Your task to perform on an android device: Find coffee shops on Maps Image 0: 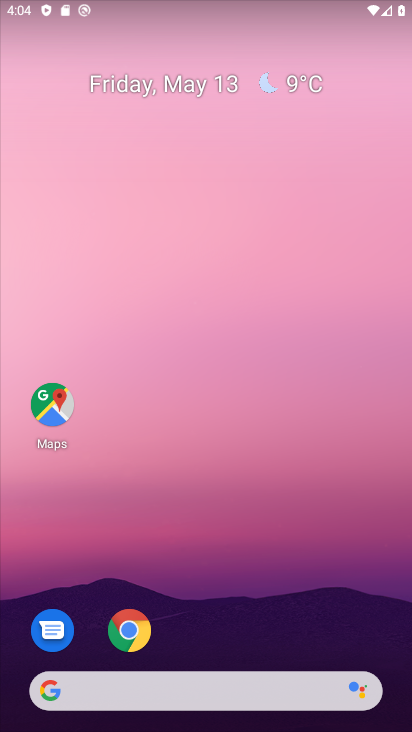
Step 0: drag from (221, 534) to (214, 98)
Your task to perform on an android device: Find coffee shops on Maps Image 1: 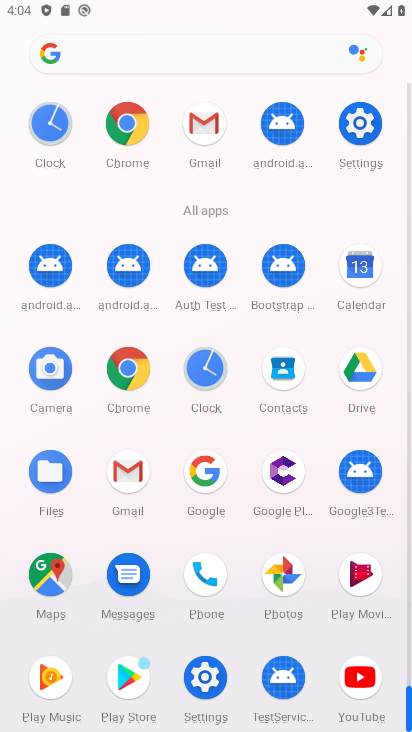
Step 1: drag from (8, 595) to (28, 295)
Your task to perform on an android device: Find coffee shops on Maps Image 2: 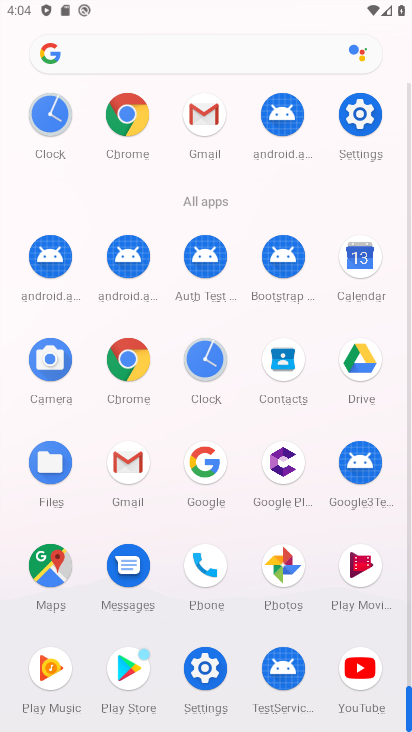
Step 2: click (47, 561)
Your task to perform on an android device: Find coffee shops on Maps Image 3: 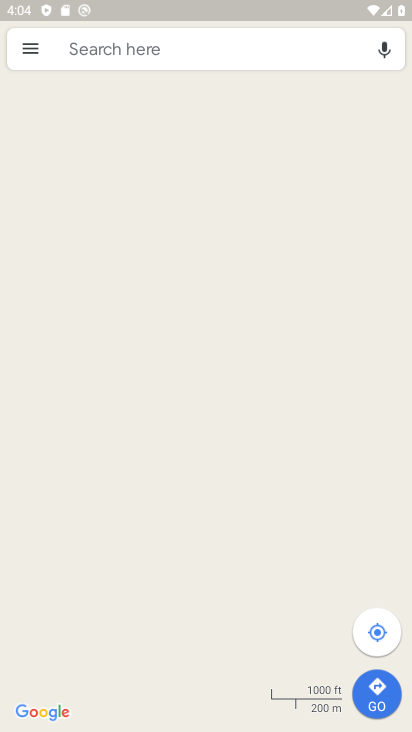
Step 3: click (220, 55)
Your task to perform on an android device: Find coffee shops on Maps Image 4: 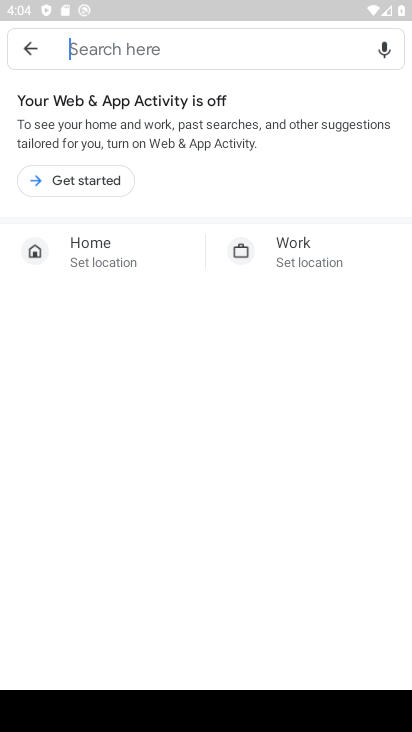
Step 4: click (29, 43)
Your task to perform on an android device: Find coffee shops on Maps Image 5: 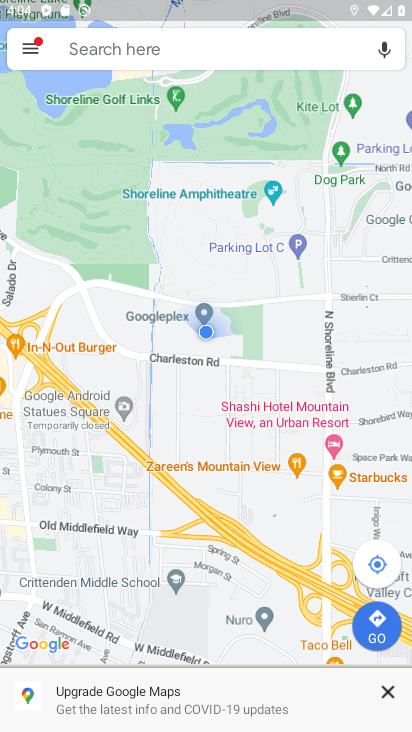
Step 5: click (193, 44)
Your task to perform on an android device: Find coffee shops on Maps Image 6: 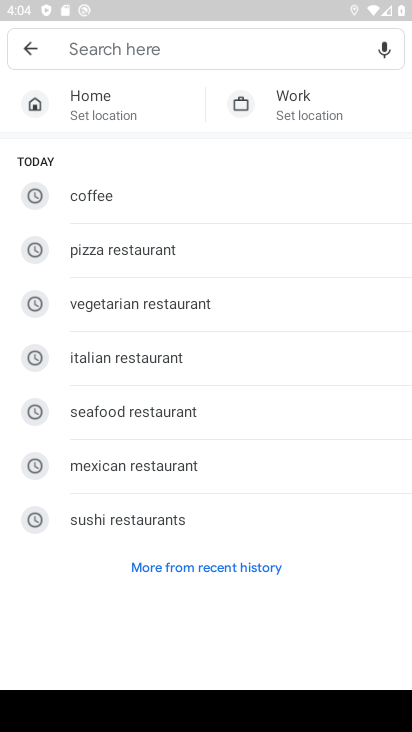
Step 6: click (135, 195)
Your task to perform on an android device: Find coffee shops on Maps Image 7: 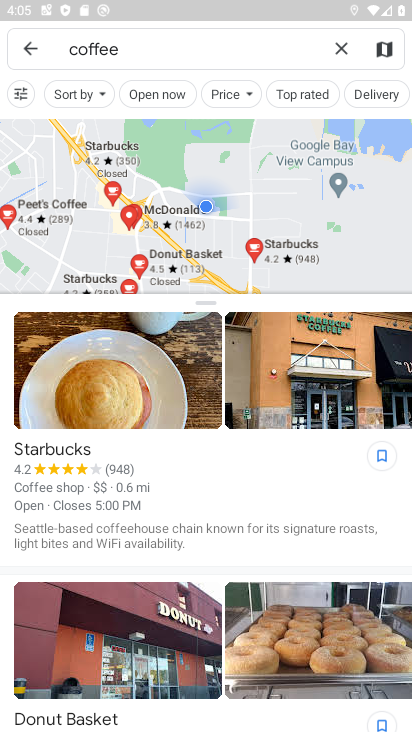
Step 7: task complete